Your task to perform on an android device: toggle location history Image 0: 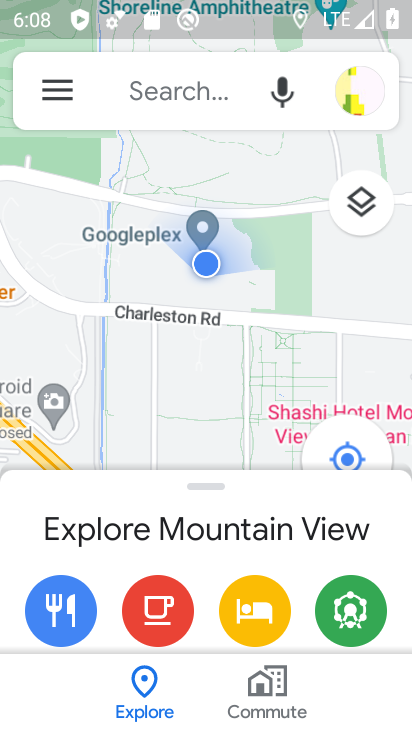
Step 0: click (58, 93)
Your task to perform on an android device: toggle location history Image 1: 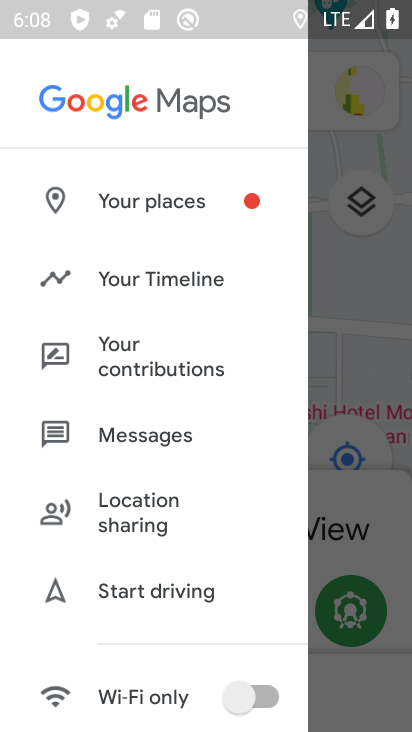
Step 1: click (186, 268)
Your task to perform on an android device: toggle location history Image 2: 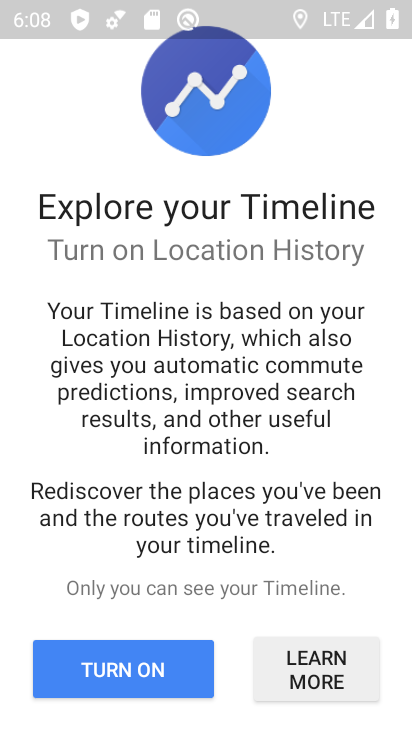
Step 2: click (113, 667)
Your task to perform on an android device: toggle location history Image 3: 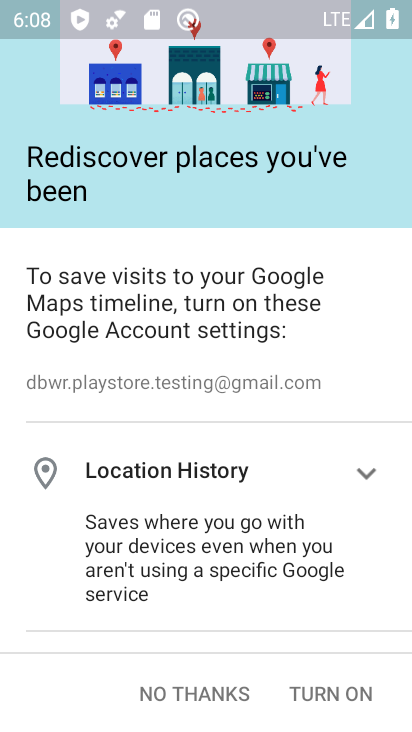
Step 3: drag from (344, 631) to (322, 129)
Your task to perform on an android device: toggle location history Image 4: 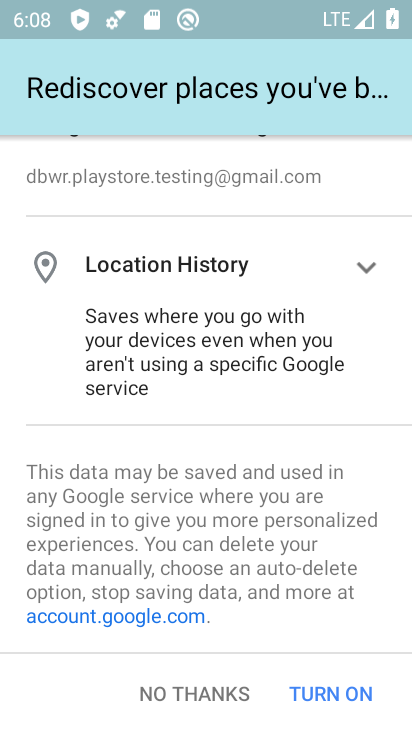
Step 4: click (323, 697)
Your task to perform on an android device: toggle location history Image 5: 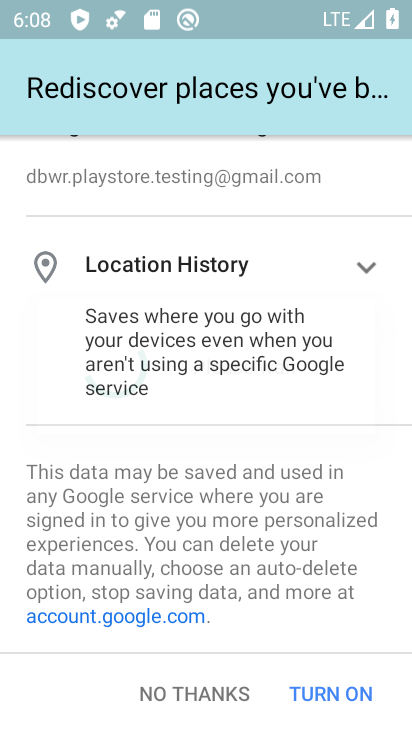
Step 5: click (323, 697)
Your task to perform on an android device: toggle location history Image 6: 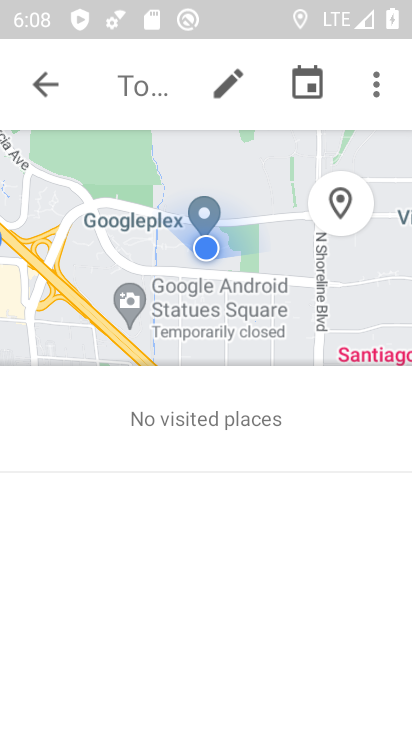
Step 6: task complete